Your task to perform on an android device: Show me productivity apps on the Play Store Image 0: 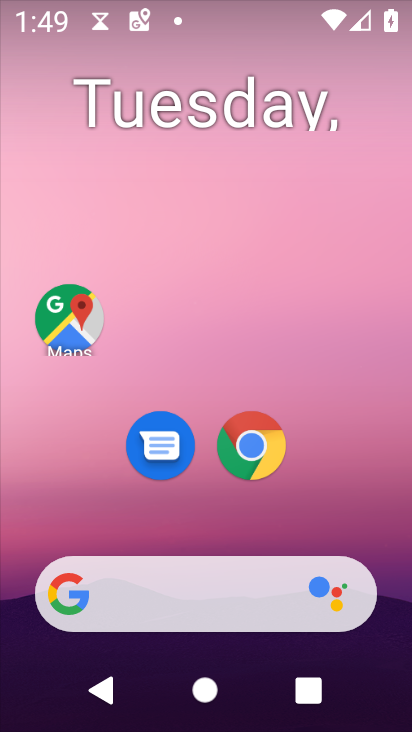
Step 0: drag from (361, 608) to (361, 63)
Your task to perform on an android device: Show me productivity apps on the Play Store Image 1: 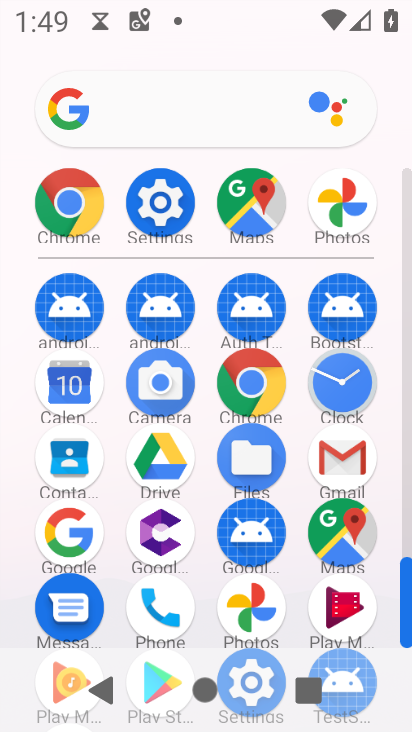
Step 1: drag from (299, 609) to (291, 205)
Your task to perform on an android device: Show me productivity apps on the Play Store Image 2: 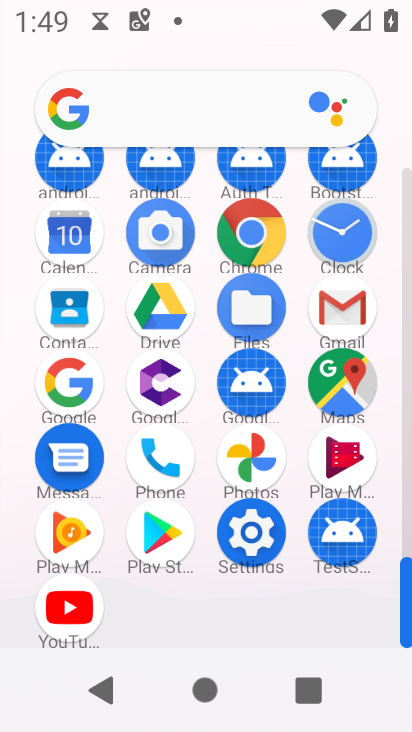
Step 2: click (164, 550)
Your task to perform on an android device: Show me productivity apps on the Play Store Image 3: 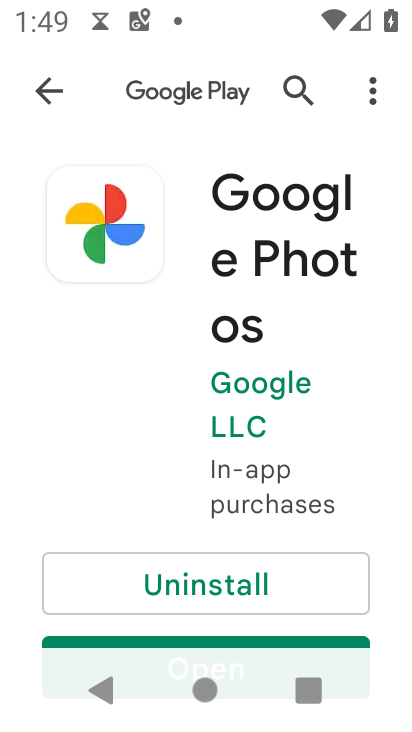
Step 3: press back button
Your task to perform on an android device: Show me productivity apps on the Play Store Image 4: 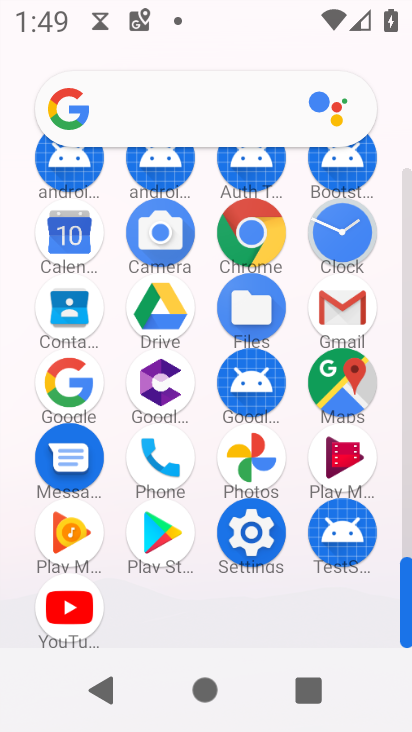
Step 4: click (174, 549)
Your task to perform on an android device: Show me productivity apps on the Play Store Image 5: 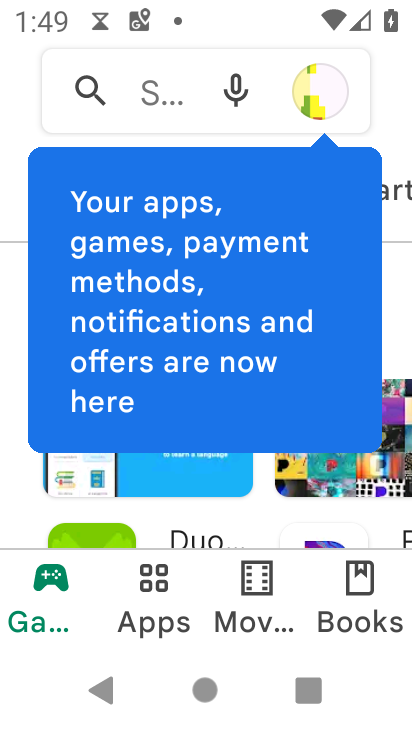
Step 5: click (152, 599)
Your task to perform on an android device: Show me productivity apps on the Play Store Image 6: 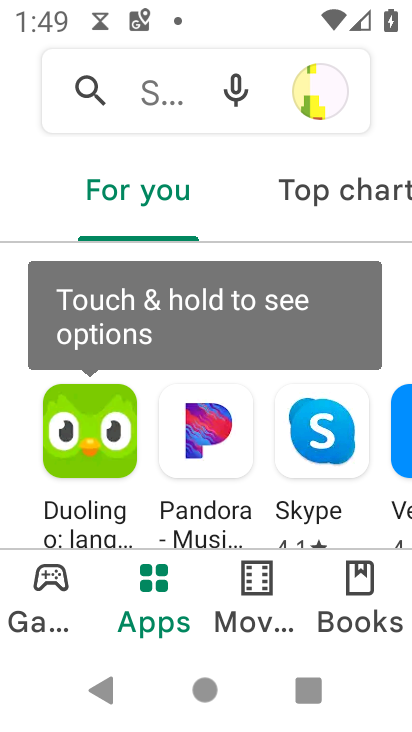
Step 6: task complete